Your task to perform on an android device: Open Chrome and go to settings Image 0: 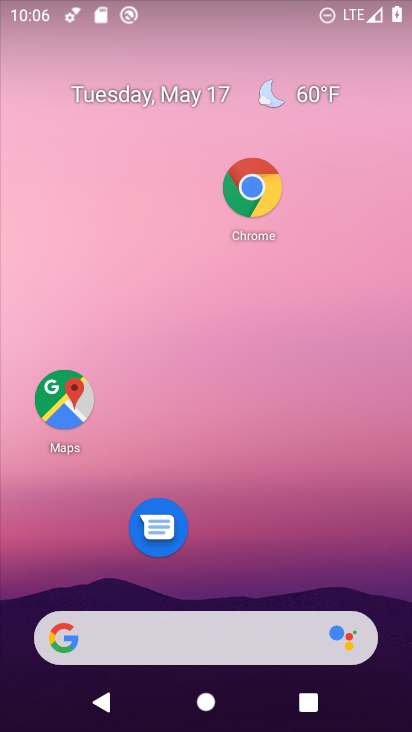
Step 0: click (240, 208)
Your task to perform on an android device: Open Chrome and go to settings Image 1: 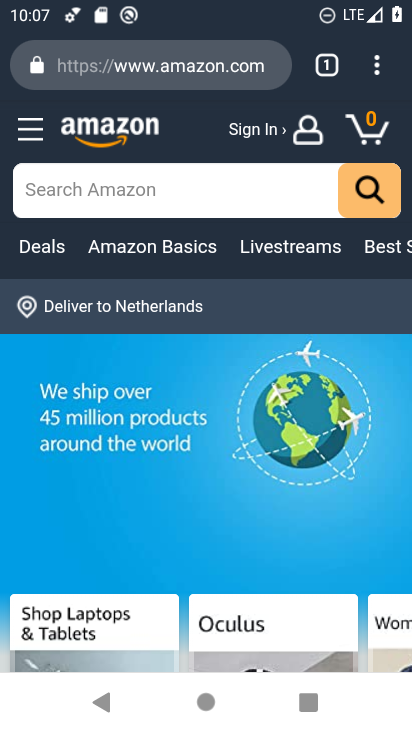
Step 1: click (385, 57)
Your task to perform on an android device: Open Chrome and go to settings Image 2: 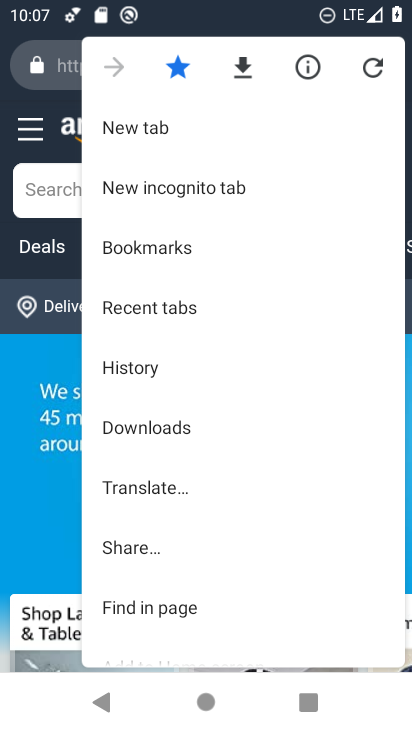
Step 2: drag from (158, 576) to (167, 345)
Your task to perform on an android device: Open Chrome and go to settings Image 3: 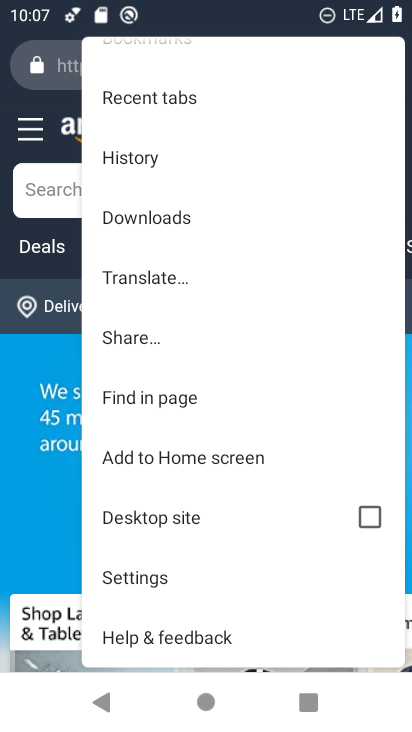
Step 3: click (203, 575)
Your task to perform on an android device: Open Chrome and go to settings Image 4: 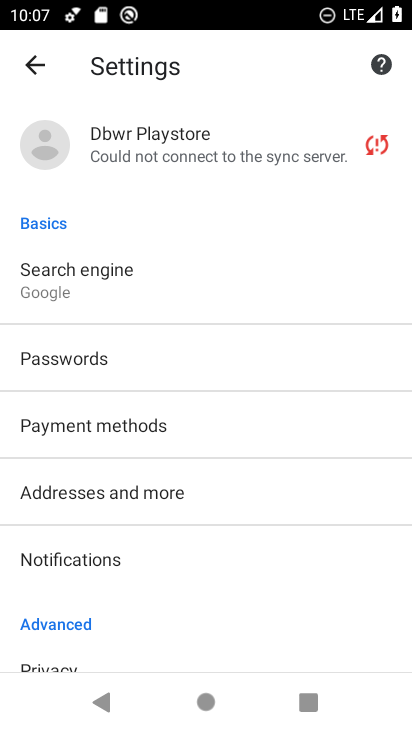
Step 4: task complete